Your task to perform on an android device: open the mobile data screen to see how much data has been used Image 0: 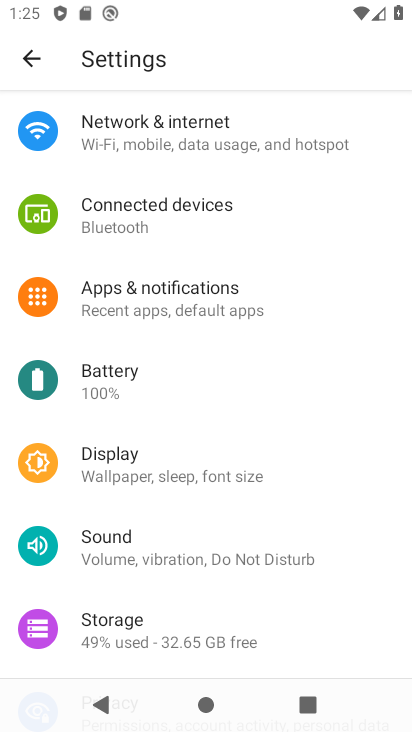
Step 0: drag from (285, 193) to (267, 412)
Your task to perform on an android device: open the mobile data screen to see how much data has been used Image 1: 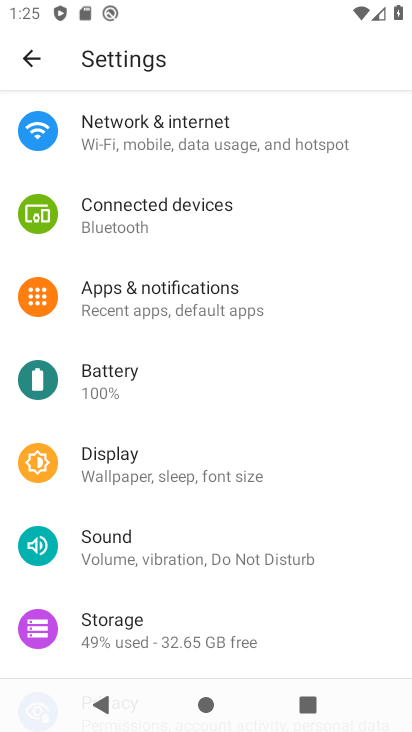
Step 1: click (232, 137)
Your task to perform on an android device: open the mobile data screen to see how much data has been used Image 2: 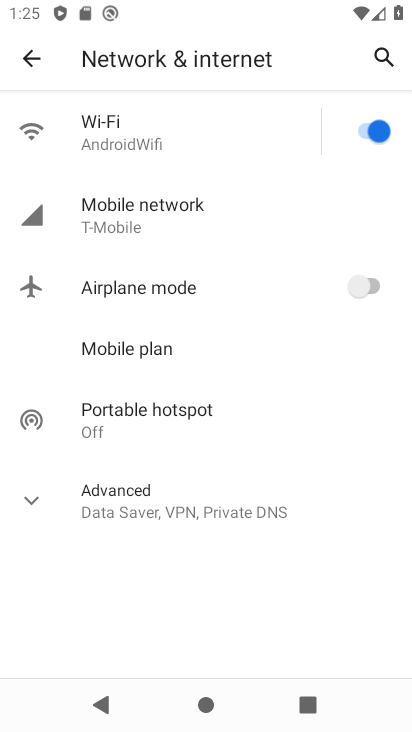
Step 2: click (213, 225)
Your task to perform on an android device: open the mobile data screen to see how much data has been used Image 3: 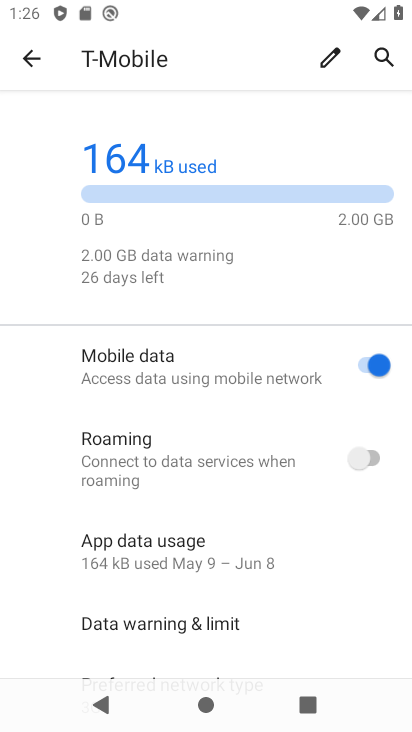
Step 3: task complete